Your task to perform on an android device: add a contact Image 0: 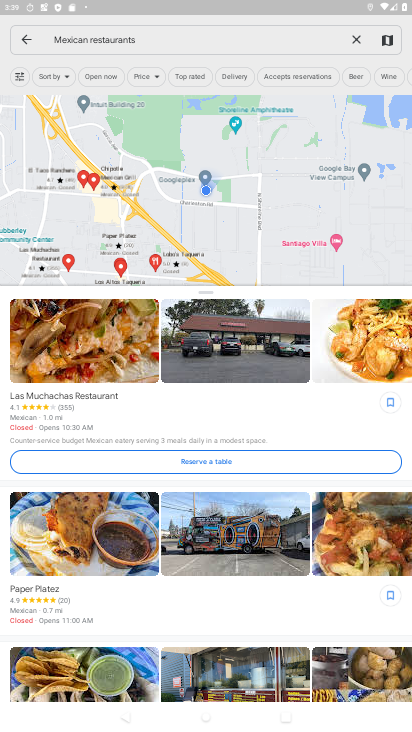
Step 0: press home button
Your task to perform on an android device: add a contact Image 1: 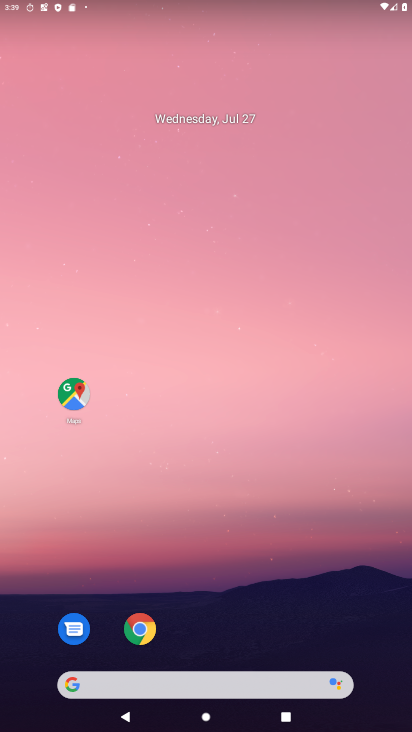
Step 1: drag from (271, 334) to (286, 0)
Your task to perform on an android device: add a contact Image 2: 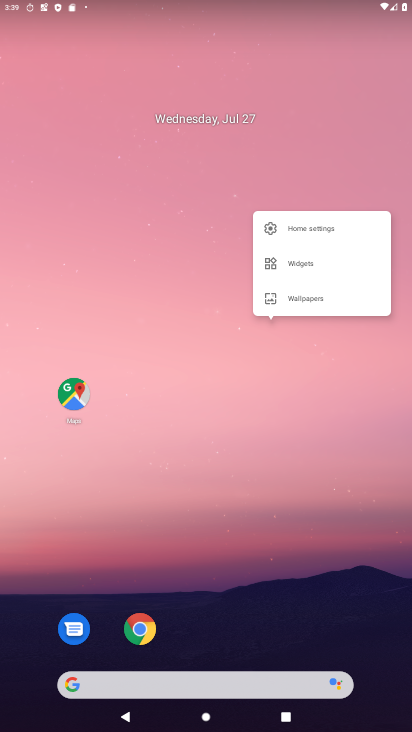
Step 2: click (260, 392)
Your task to perform on an android device: add a contact Image 3: 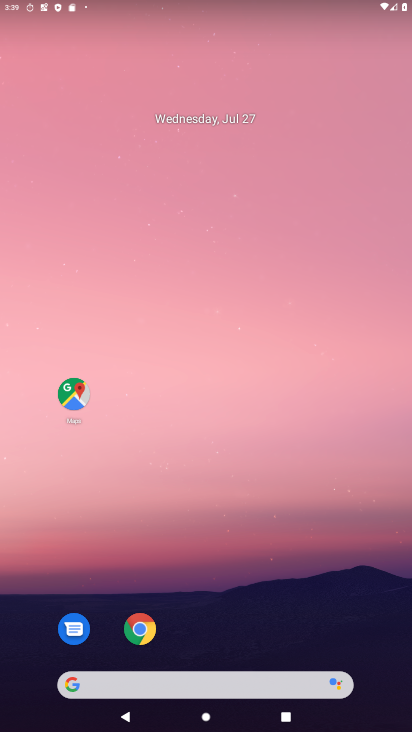
Step 3: drag from (308, 497) to (264, 10)
Your task to perform on an android device: add a contact Image 4: 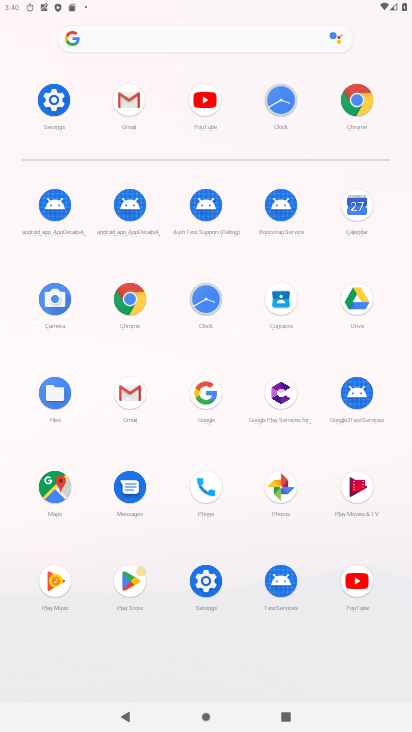
Step 4: click (274, 296)
Your task to perform on an android device: add a contact Image 5: 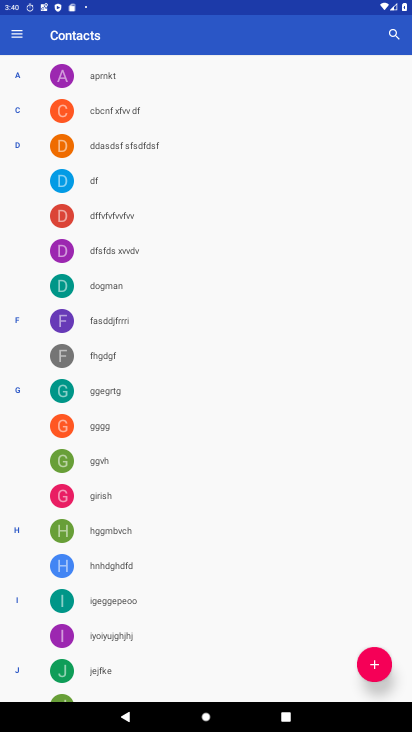
Step 5: click (377, 659)
Your task to perform on an android device: add a contact Image 6: 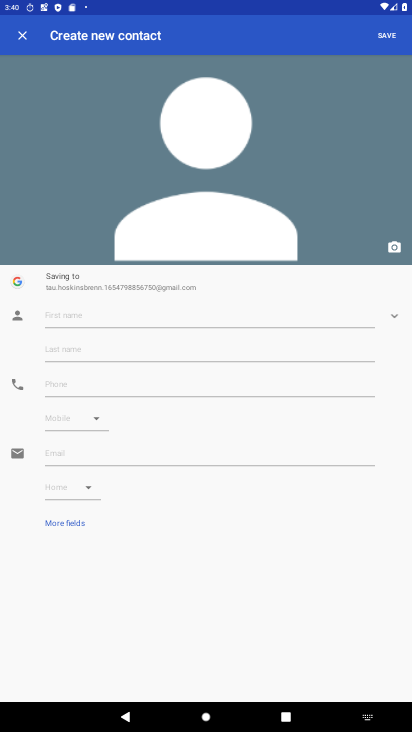
Step 6: click (221, 319)
Your task to perform on an android device: add a contact Image 7: 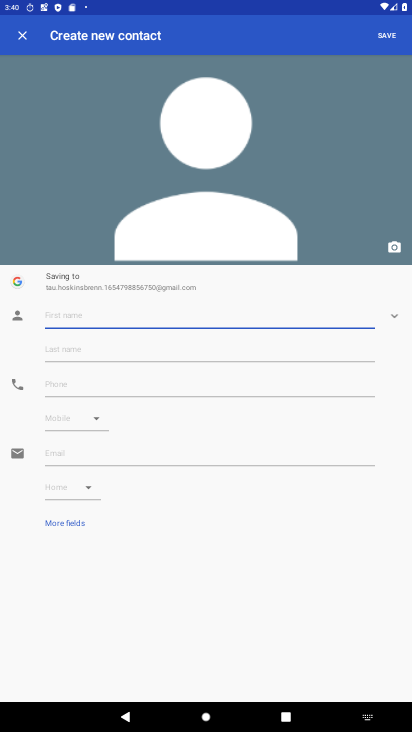
Step 7: type "holiday"
Your task to perform on an android device: add a contact Image 8: 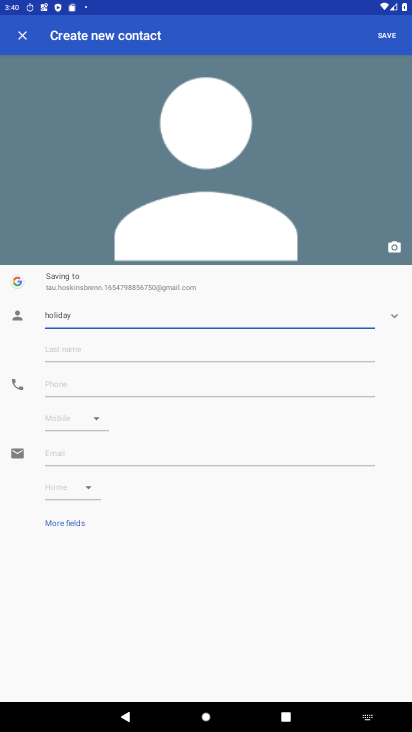
Step 8: click (389, 35)
Your task to perform on an android device: add a contact Image 9: 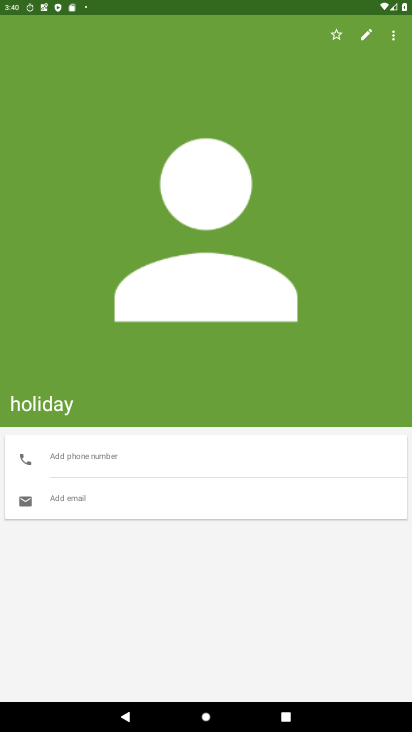
Step 9: task complete